Your task to perform on an android device: Open Google Chrome Image 0: 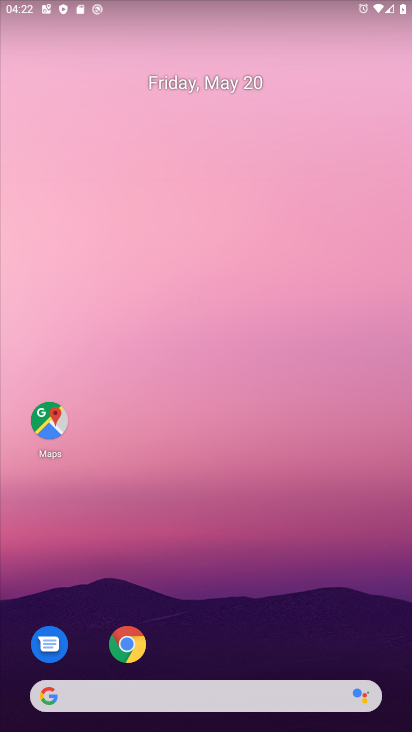
Step 0: click (130, 633)
Your task to perform on an android device: Open Google Chrome Image 1: 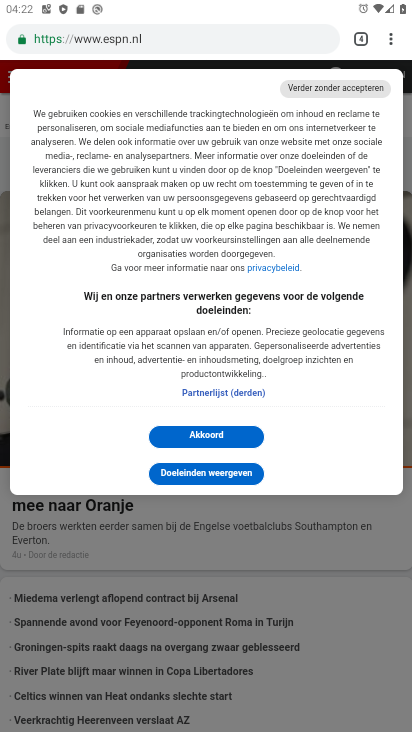
Step 1: task complete